Your task to perform on an android device: set the stopwatch Image 0: 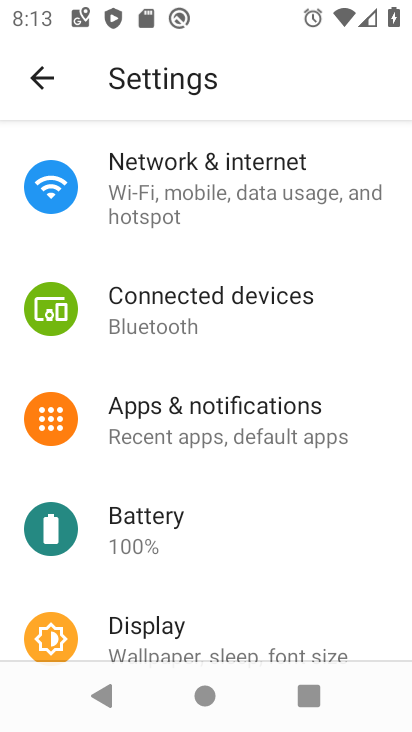
Step 0: press home button
Your task to perform on an android device: set the stopwatch Image 1: 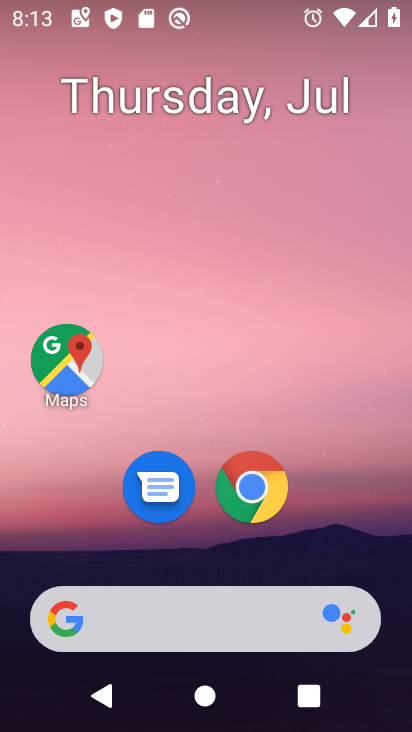
Step 1: drag from (201, 566) to (206, 172)
Your task to perform on an android device: set the stopwatch Image 2: 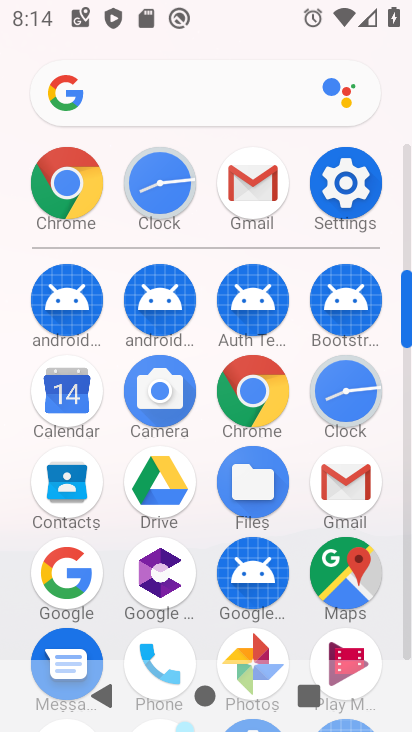
Step 2: click (333, 416)
Your task to perform on an android device: set the stopwatch Image 3: 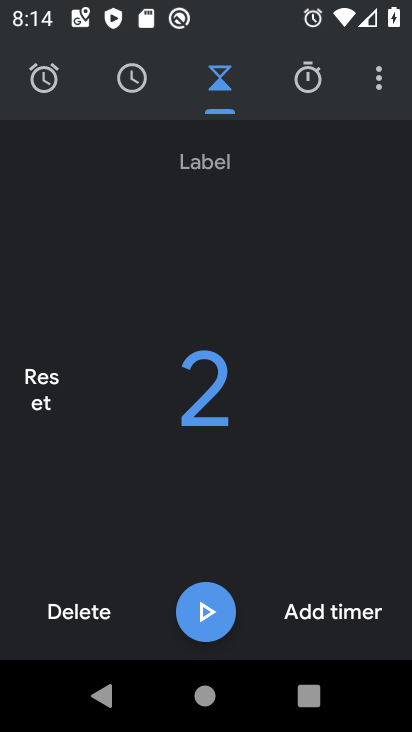
Step 3: click (295, 80)
Your task to perform on an android device: set the stopwatch Image 4: 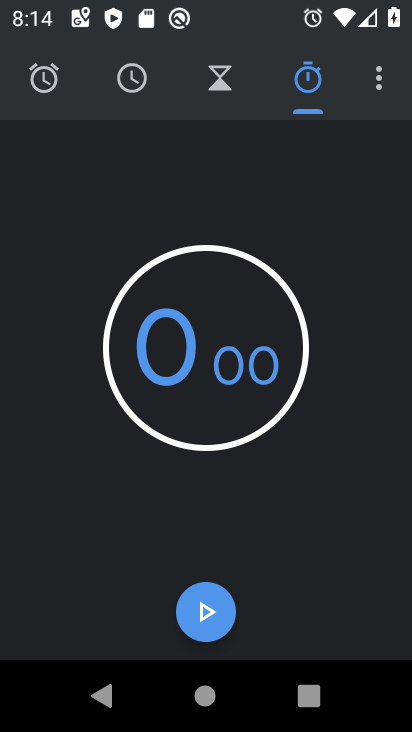
Step 4: click (191, 622)
Your task to perform on an android device: set the stopwatch Image 5: 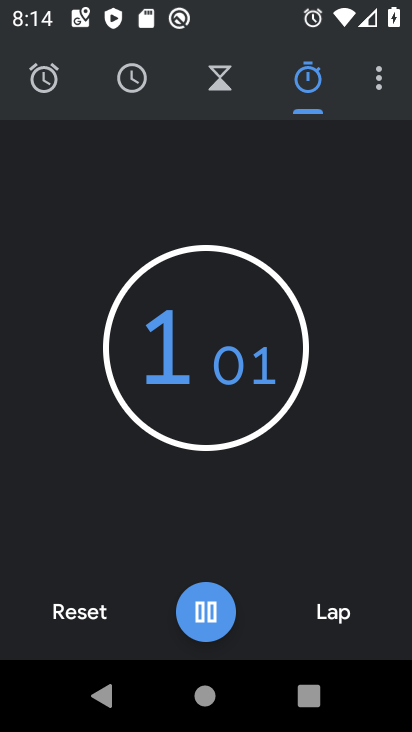
Step 5: task complete